Your task to perform on an android device: Open display settings Image 0: 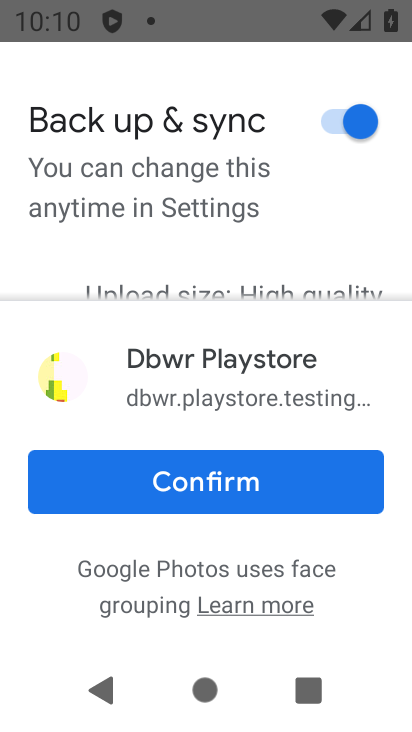
Step 0: press home button
Your task to perform on an android device: Open display settings Image 1: 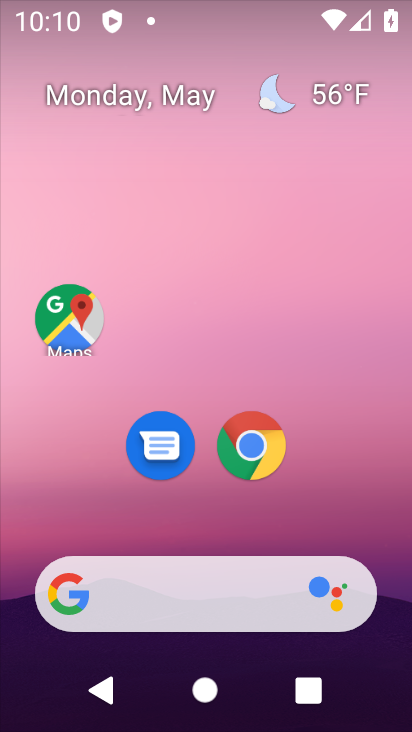
Step 1: drag from (216, 556) to (234, 209)
Your task to perform on an android device: Open display settings Image 2: 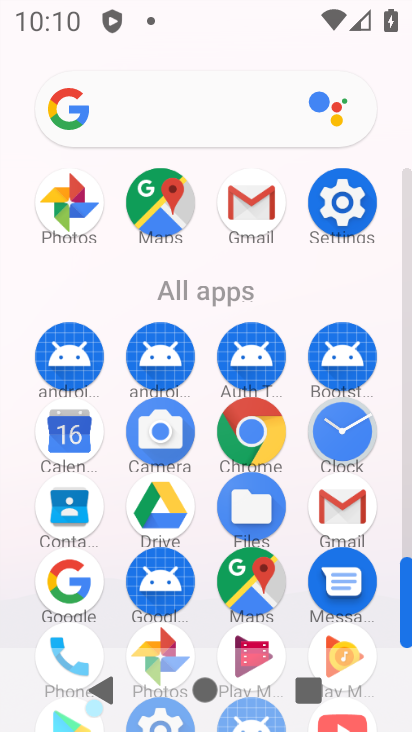
Step 2: click (340, 207)
Your task to perform on an android device: Open display settings Image 3: 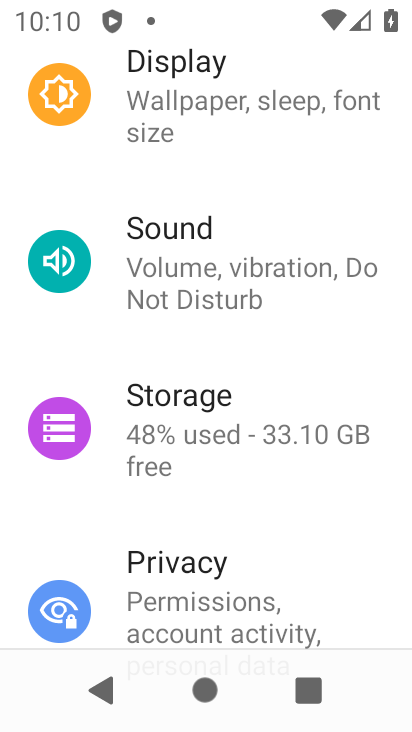
Step 3: drag from (203, 612) to (216, 239)
Your task to perform on an android device: Open display settings Image 4: 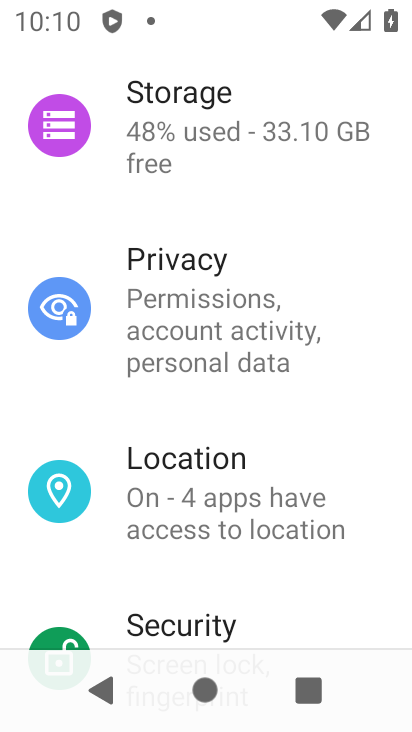
Step 4: drag from (300, 106) to (218, 513)
Your task to perform on an android device: Open display settings Image 5: 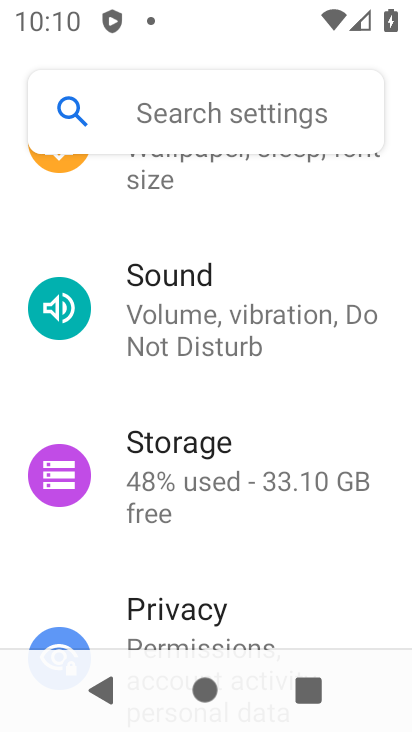
Step 5: drag from (262, 200) to (214, 514)
Your task to perform on an android device: Open display settings Image 6: 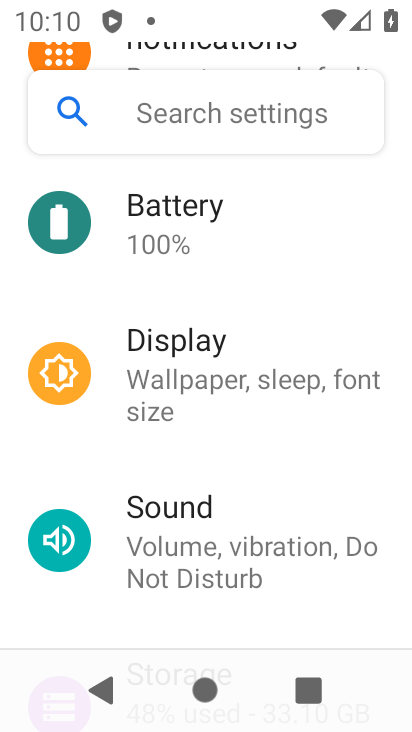
Step 6: click (172, 374)
Your task to perform on an android device: Open display settings Image 7: 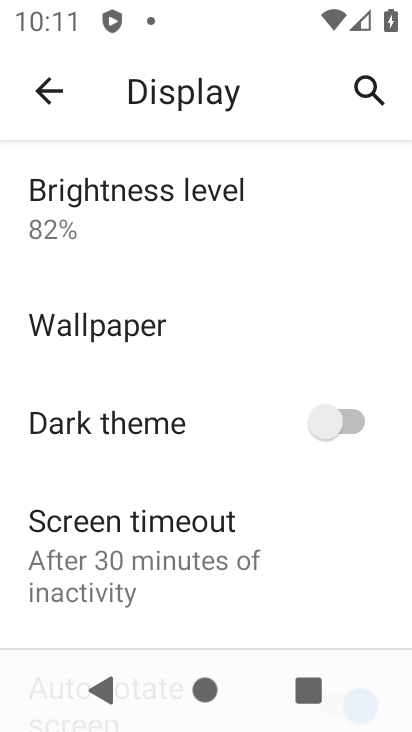
Step 7: drag from (187, 586) to (184, 321)
Your task to perform on an android device: Open display settings Image 8: 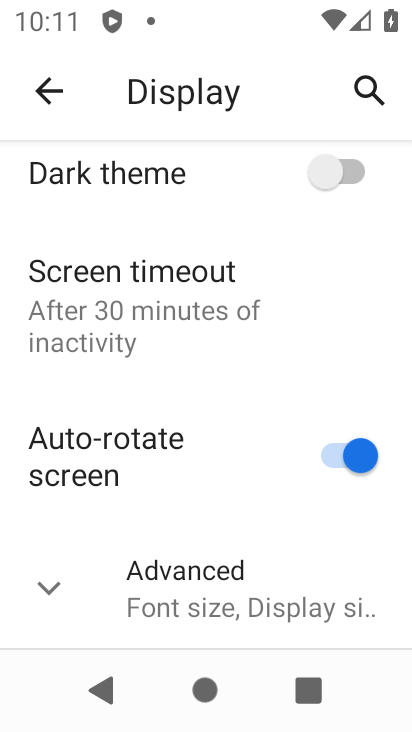
Step 8: click (185, 597)
Your task to perform on an android device: Open display settings Image 9: 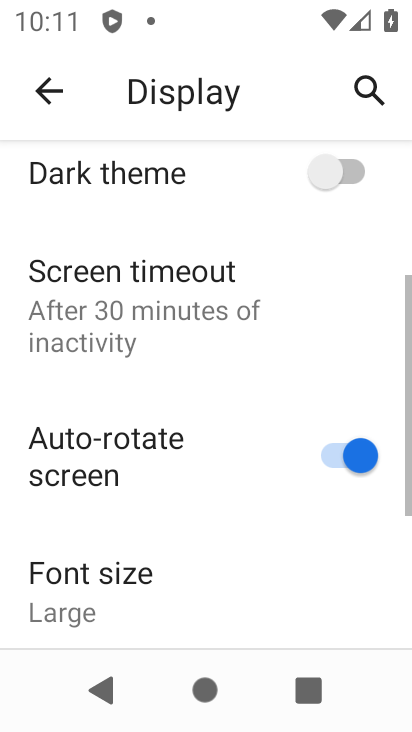
Step 9: task complete